Your task to perform on an android device: Go to sound settings Image 0: 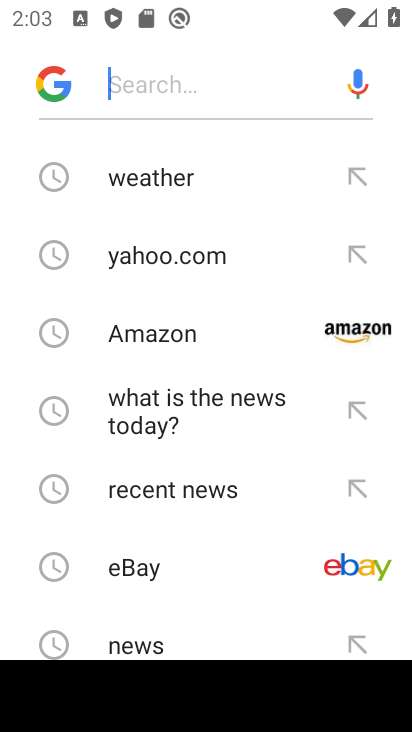
Step 0: press back button
Your task to perform on an android device: Go to sound settings Image 1: 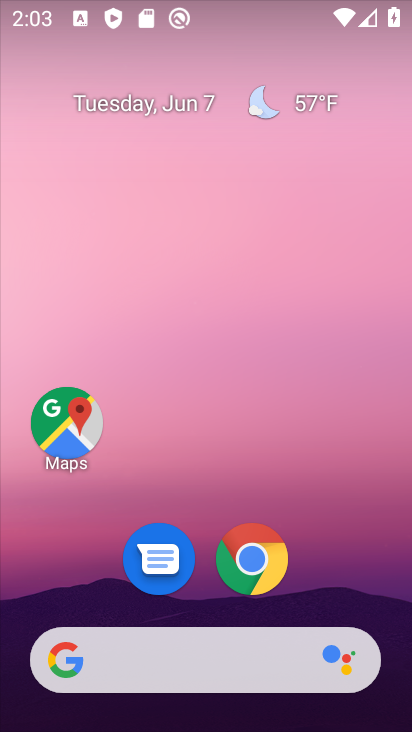
Step 1: drag from (54, 573) to (314, 141)
Your task to perform on an android device: Go to sound settings Image 2: 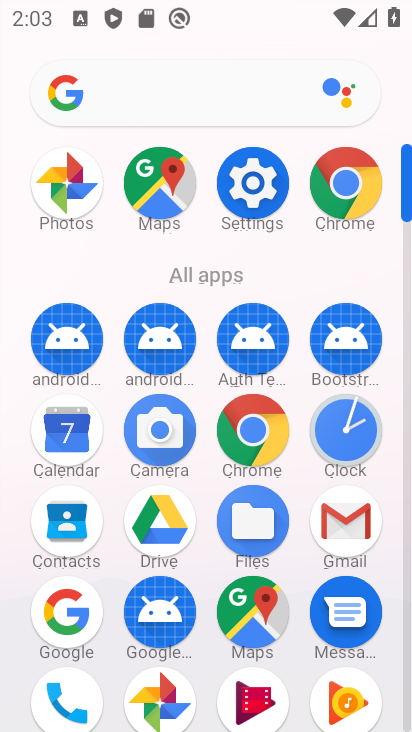
Step 2: click (242, 189)
Your task to perform on an android device: Go to sound settings Image 3: 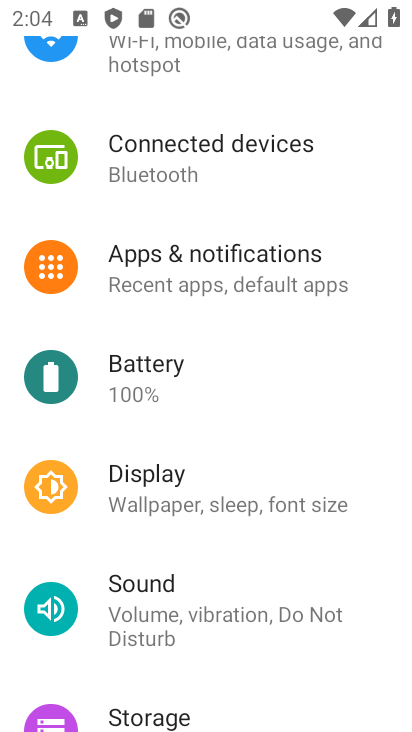
Step 3: click (127, 621)
Your task to perform on an android device: Go to sound settings Image 4: 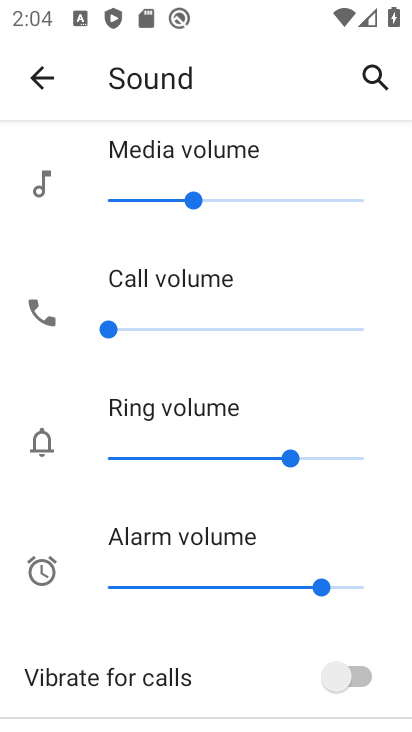
Step 4: task complete